Your task to perform on an android device: Go to Amazon Image 0: 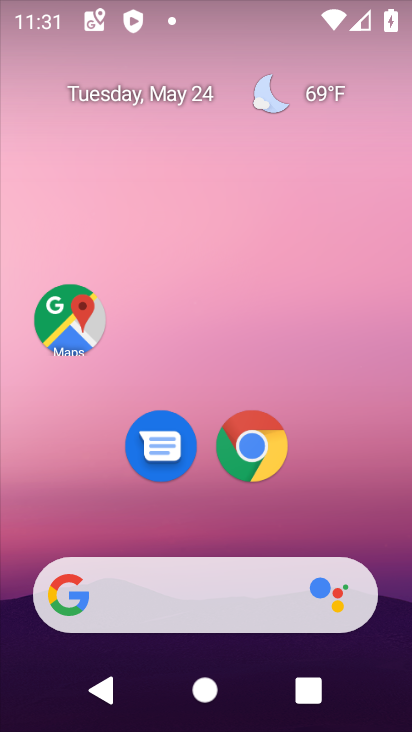
Step 0: click (246, 450)
Your task to perform on an android device: Go to Amazon Image 1: 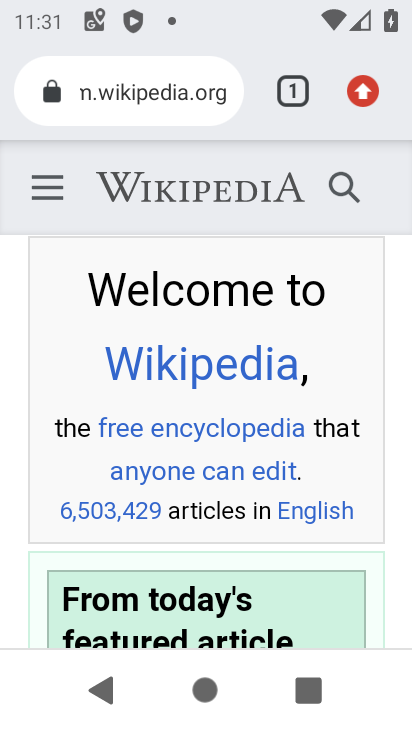
Step 1: click (294, 89)
Your task to perform on an android device: Go to Amazon Image 2: 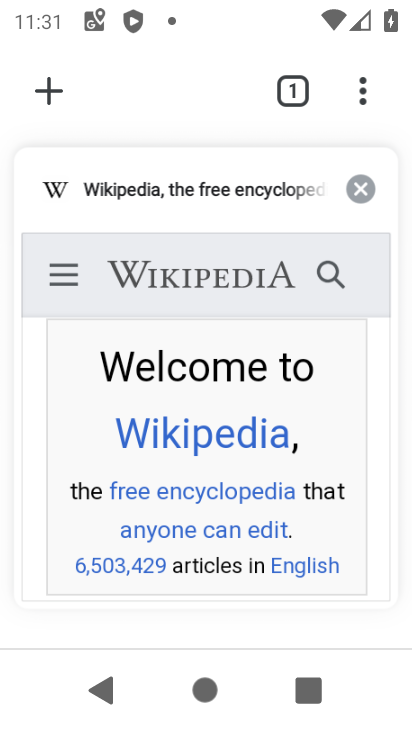
Step 2: click (362, 188)
Your task to perform on an android device: Go to Amazon Image 3: 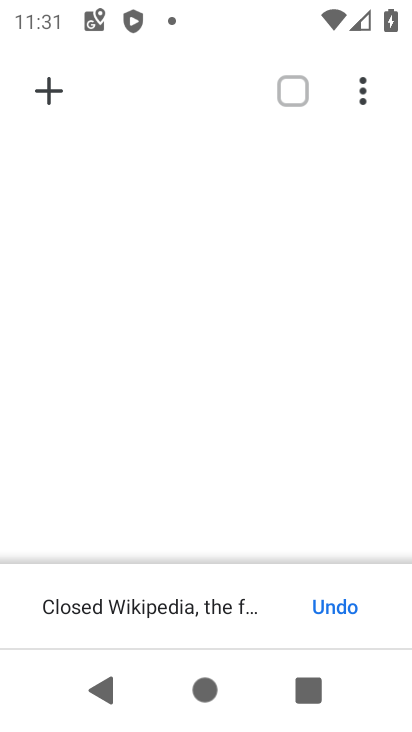
Step 3: click (45, 97)
Your task to perform on an android device: Go to Amazon Image 4: 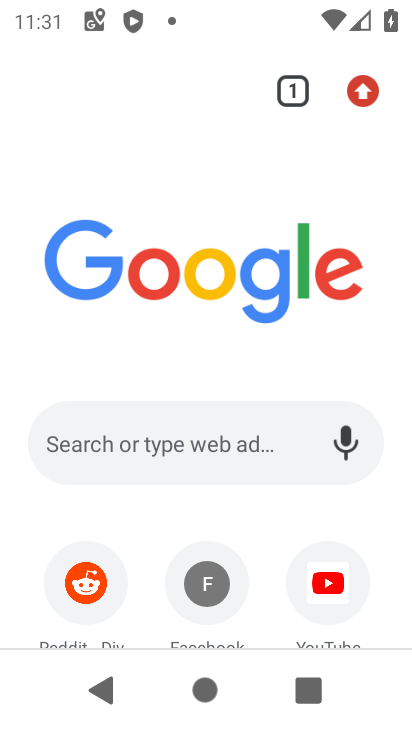
Step 4: drag from (189, 506) to (211, 186)
Your task to perform on an android device: Go to Amazon Image 5: 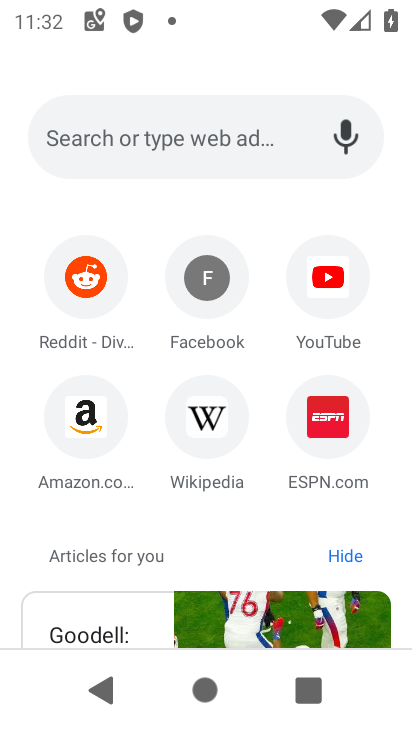
Step 5: click (86, 403)
Your task to perform on an android device: Go to Amazon Image 6: 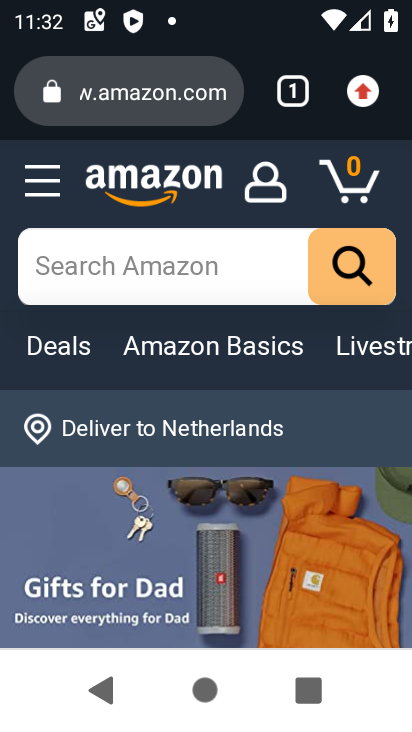
Step 6: task complete